Your task to perform on an android device: Go to display settings Image 0: 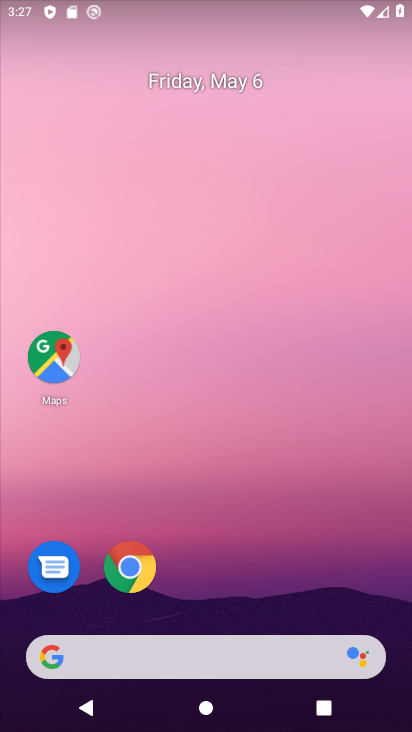
Step 0: drag from (201, 621) to (305, 228)
Your task to perform on an android device: Go to display settings Image 1: 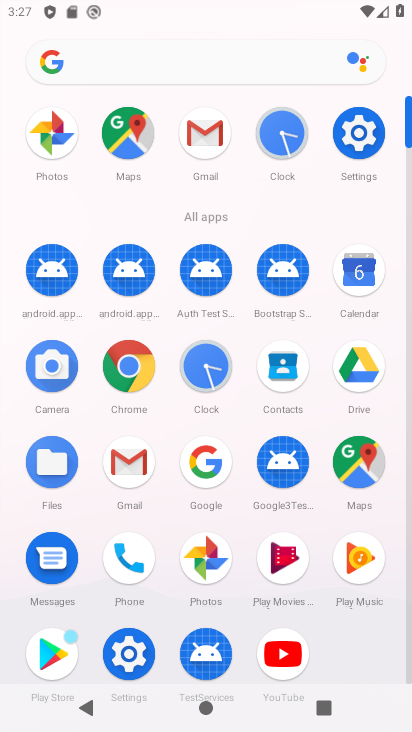
Step 1: click (360, 166)
Your task to perform on an android device: Go to display settings Image 2: 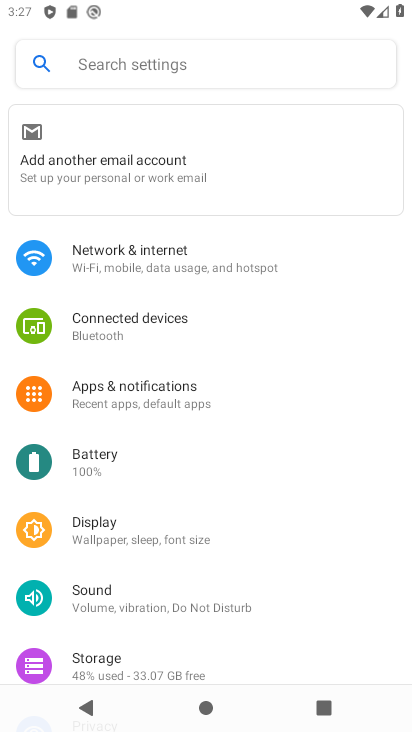
Step 2: click (122, 526)
Your task to perform on an android device: Go to display settings Image 3: 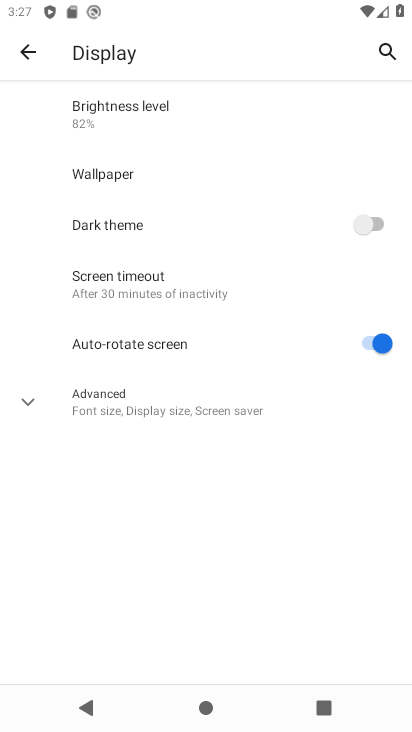
Step 3: task complete